Your task to perform on an android device: change the clock display to digital Image 0: 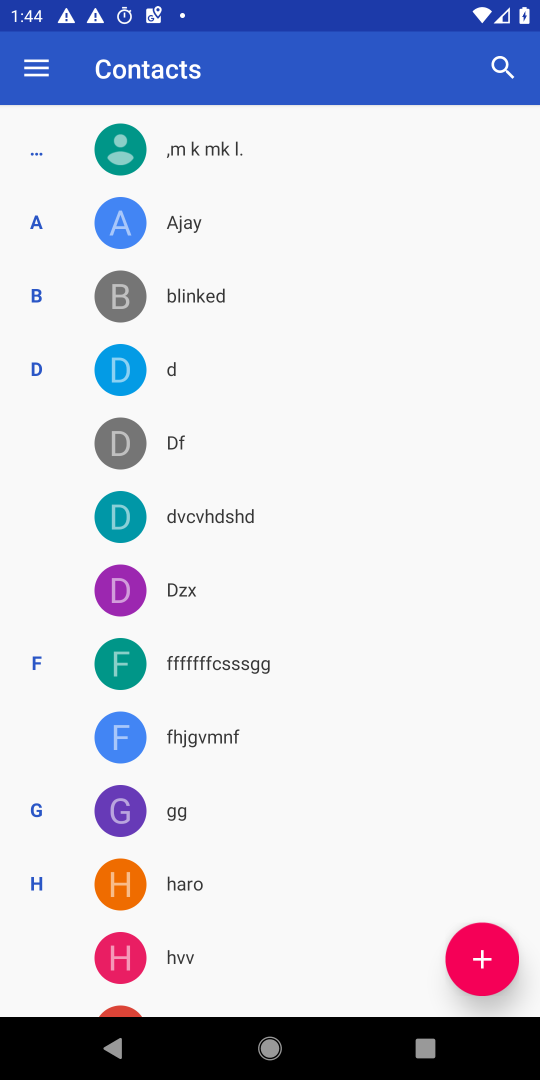
Step 0: press home button
Your task to perform on an android device: change the clock display to digital Image 1: 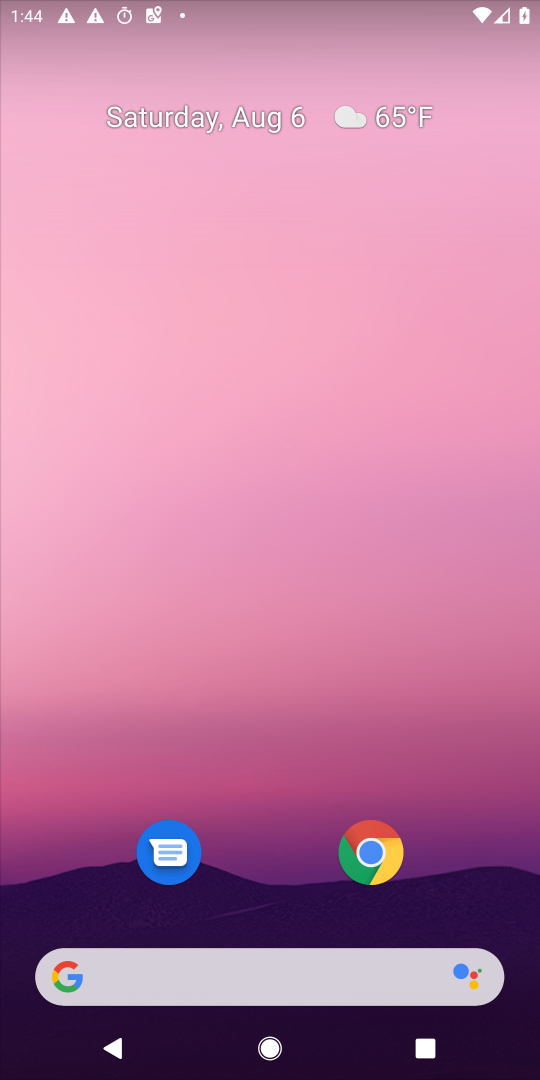
Step 1: drag from (347, 1014) to (353, 403)
Your task to perform on an android device: change the clock display to digital Image 2: 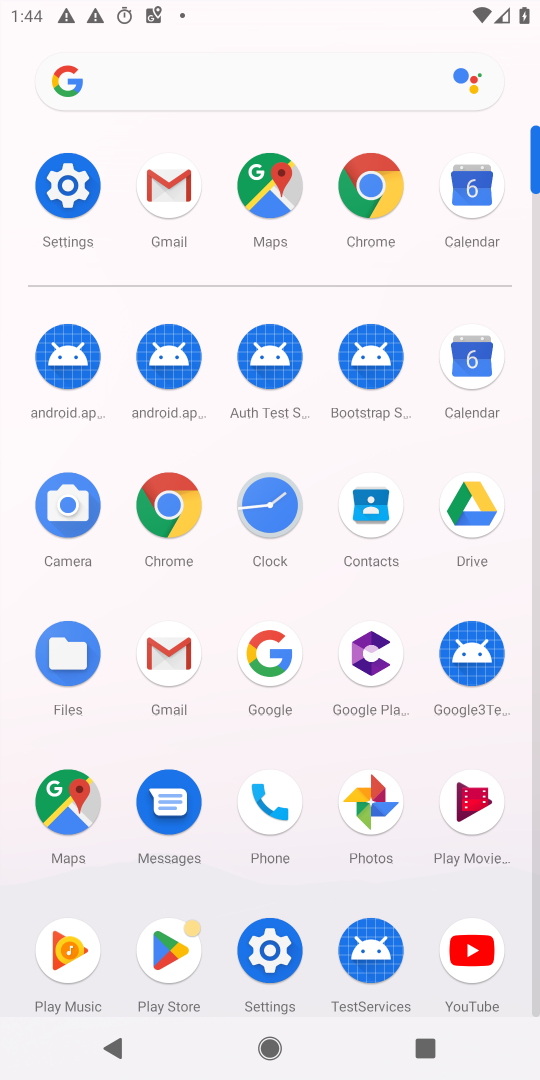
Step 2: click (268, 511)
Your task to perform on an android device: change the clock display to digital Image 3: 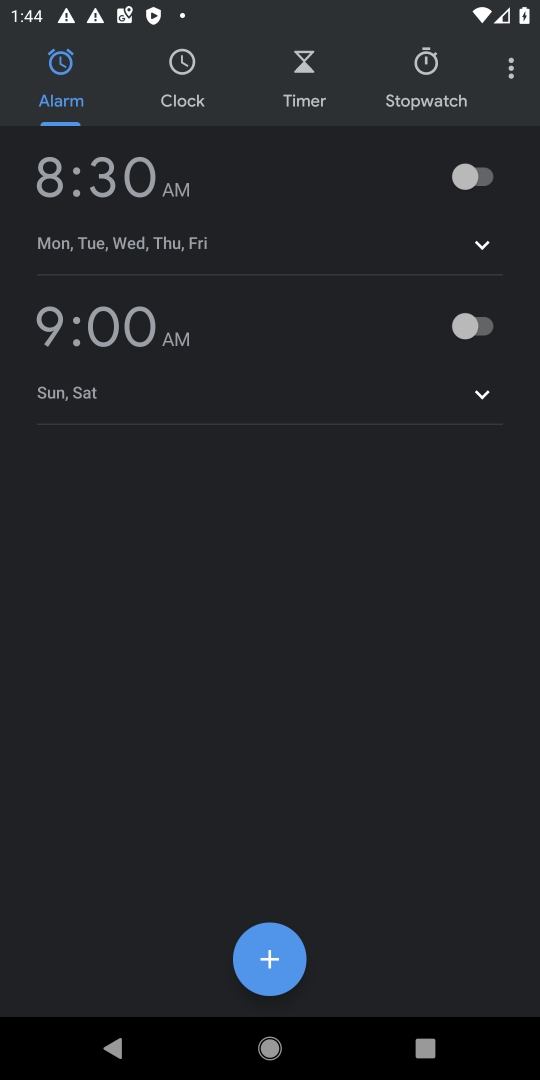
Step 3: click (515, 74)
Your task to perform on an android device: change the clock display to digital Image 4: 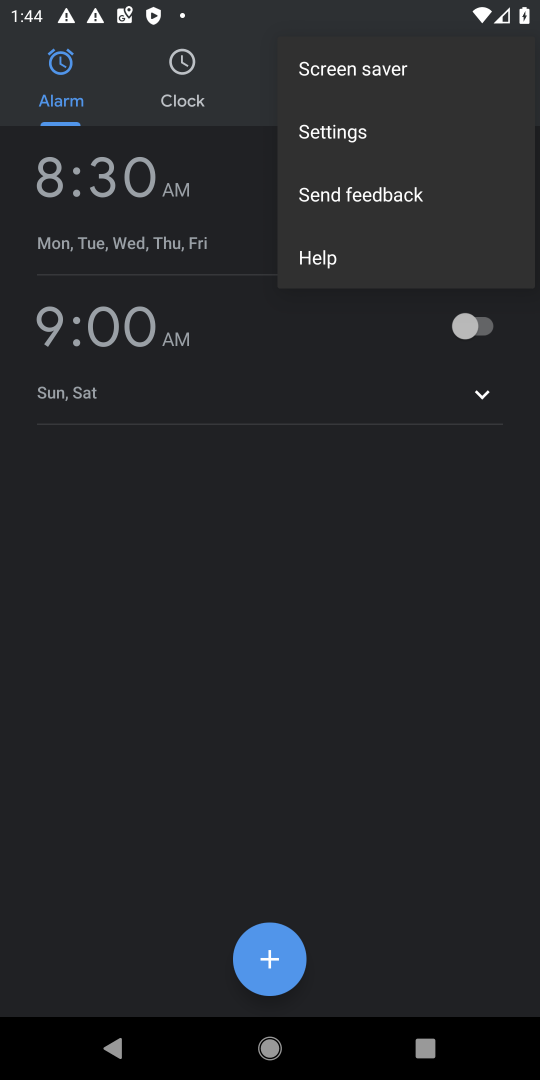
Step 4: click (379, 135)
Your task to perform on an android device: change the clock display to digital Image 5: 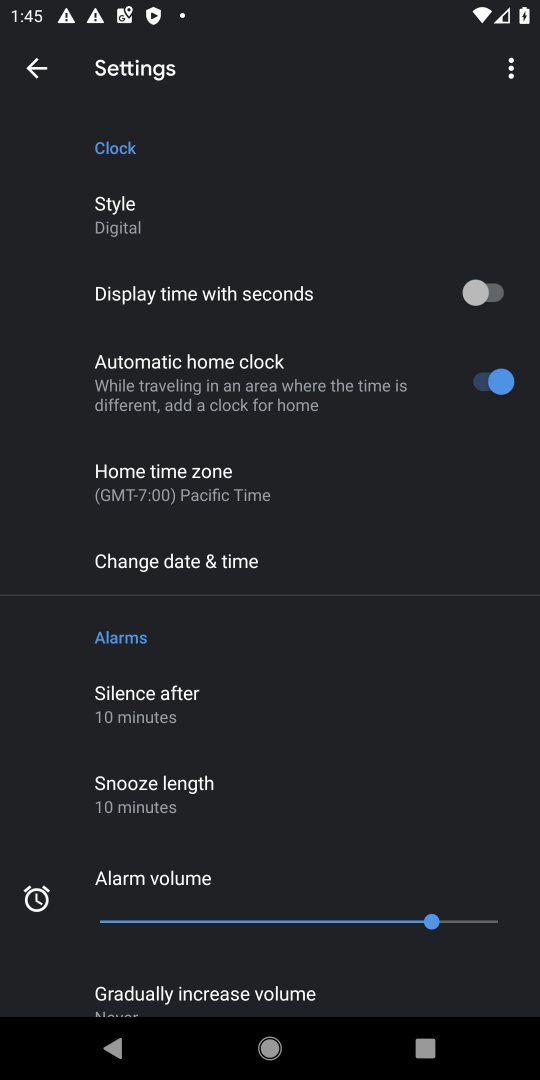
Step 5: click (125, 234)
Your task to perform on an android device: change the clock display to digital Image 6: 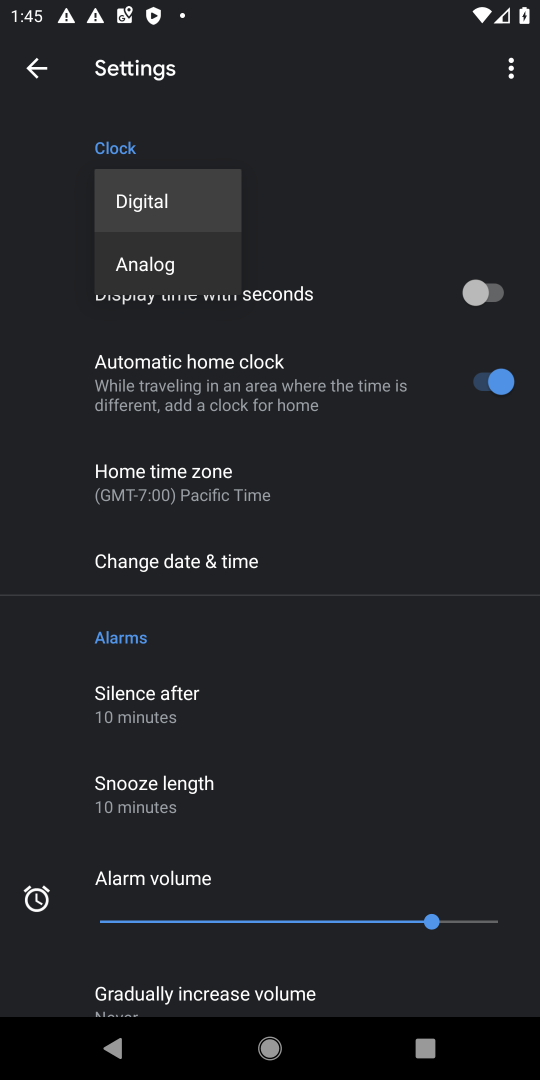
Step 6: click (155, 205)
Your task to perform on an android device: change the clock display to digital Image 7: 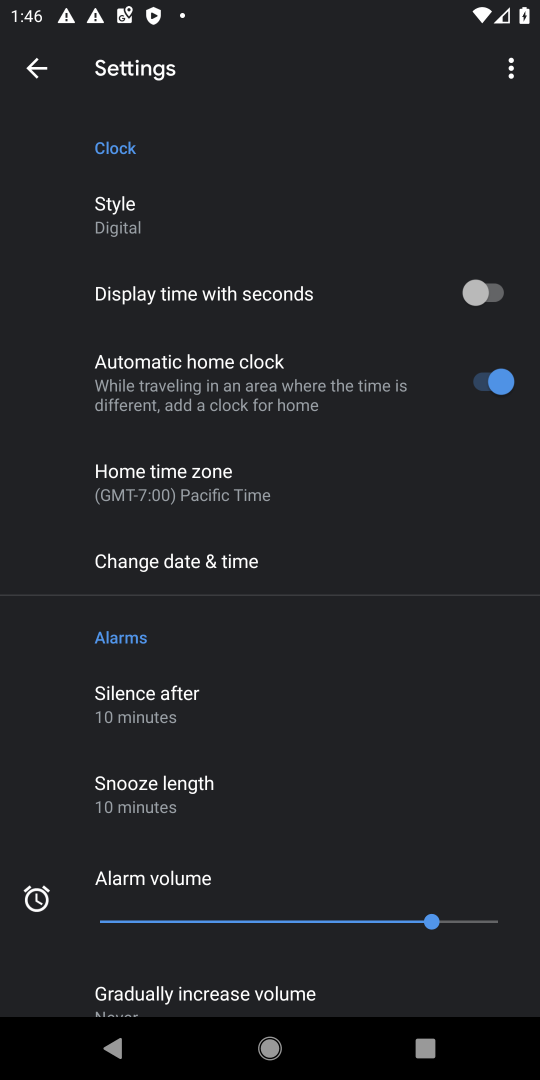
Step 7: task complete